Your task to perform on an android device: What is the news today? Image 0: 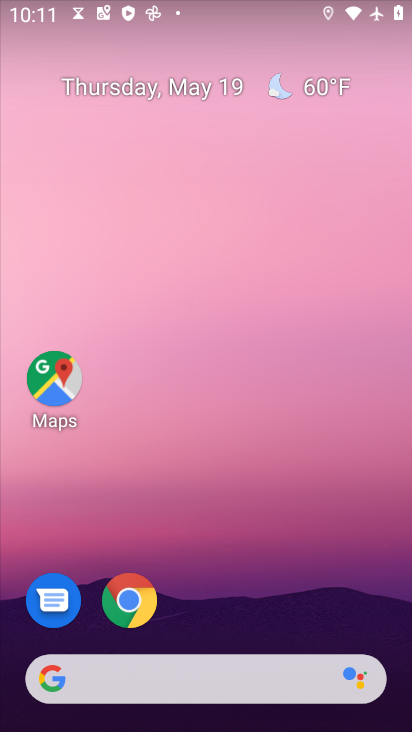
Step 0: drag from (246, 570) to (226, 98)
Your task to perform on an android device: What is the news today? Image 1: 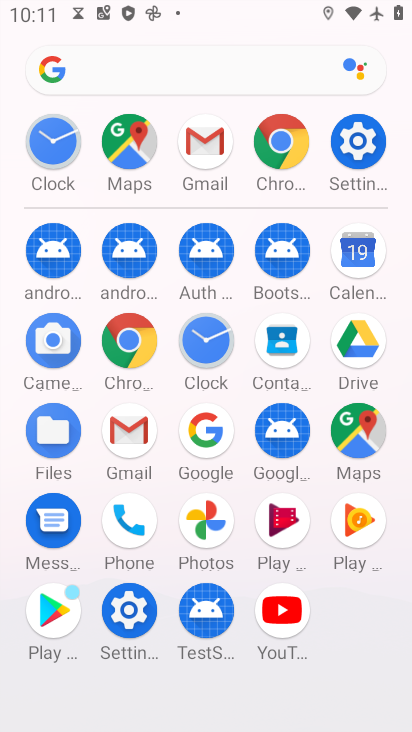
Step 1: click (125, 340)
Your task to perform on an android device: What is the news today? Image 2: 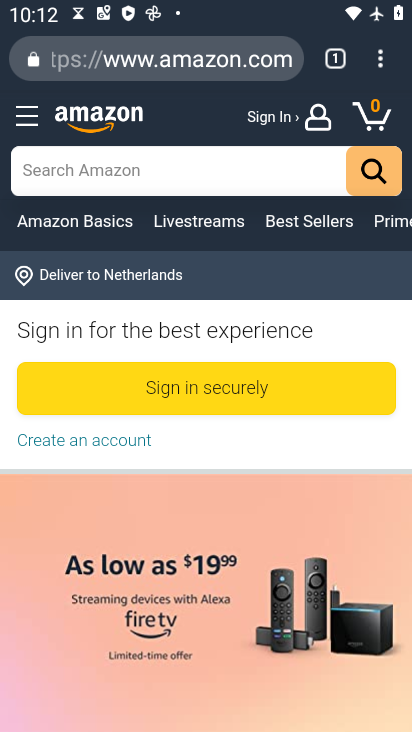
Step 2: click (176, 63)
Your task to perform on an android device: What is the news today? Image 3: 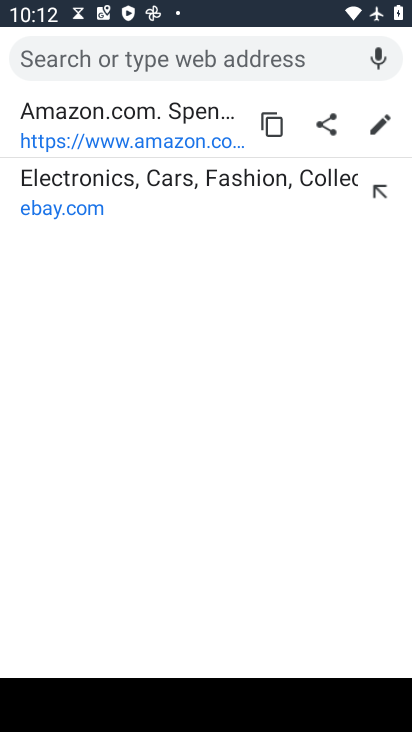
Step 3: type "What is the news today?"
Your task to perform on an android device: What is the news today? Image 4: 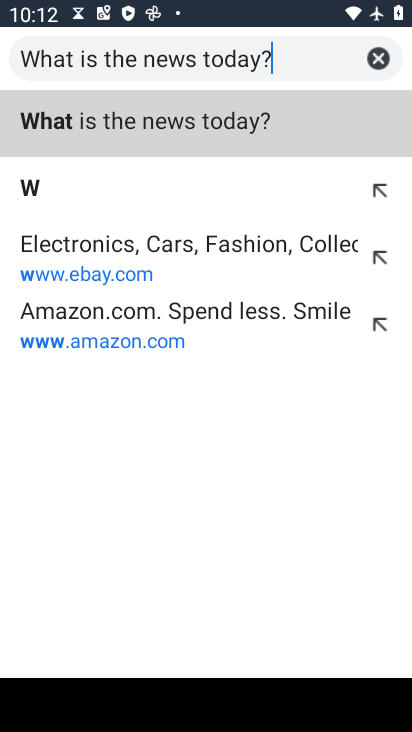
Step 4: type ""
Your task to perform on an android device: What is the news today? Image 5: 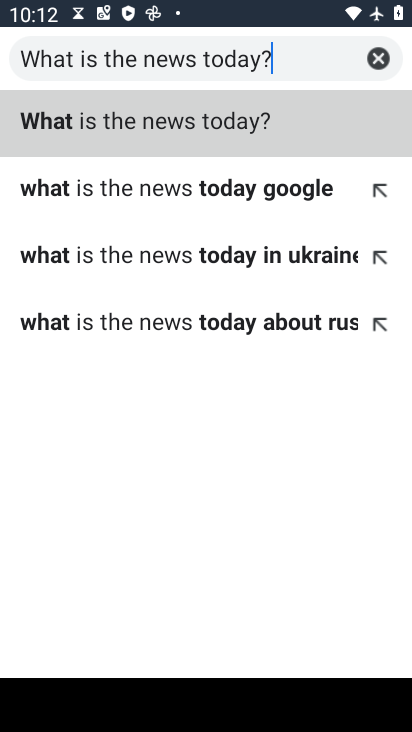
Step 5: click (231, 125)
Your task to perform on an android device: What is the news today? Image 6: 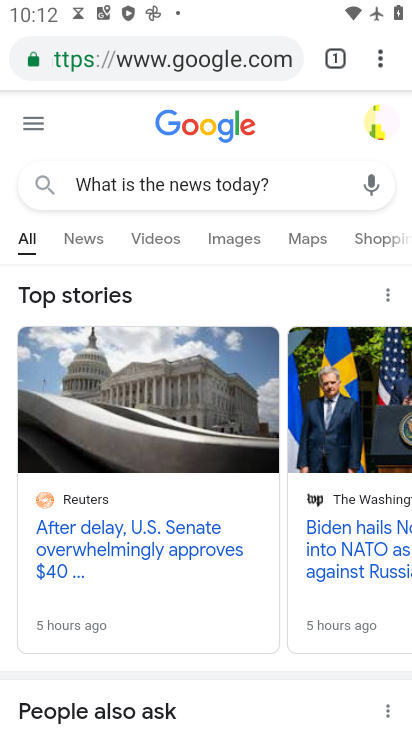
Step 6: task complete